Your task to perform on an android device: show emergency info Image 0: 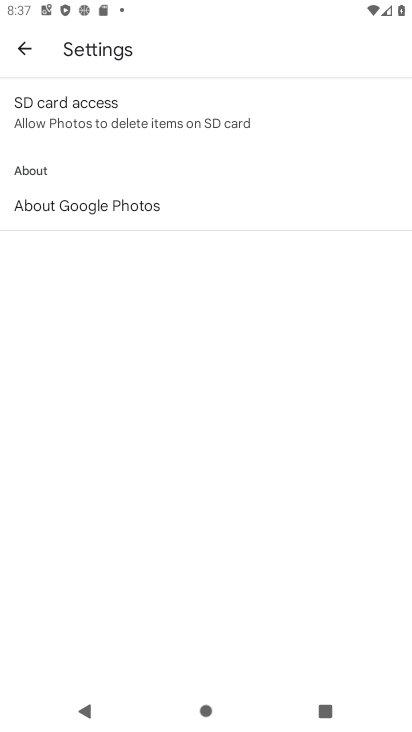
Step 0: press home button
Your task to perform on an android device: show emergency info Image 1: 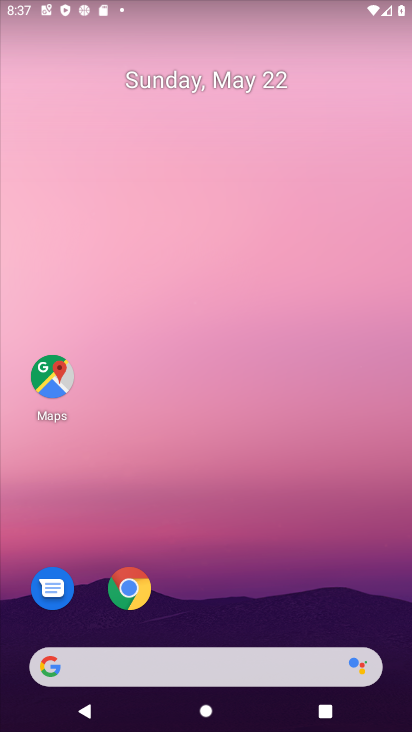
Step 1: drag from (243, 560) to (230, 17)
Your task to perform on an android device: show emergency info Image 2: 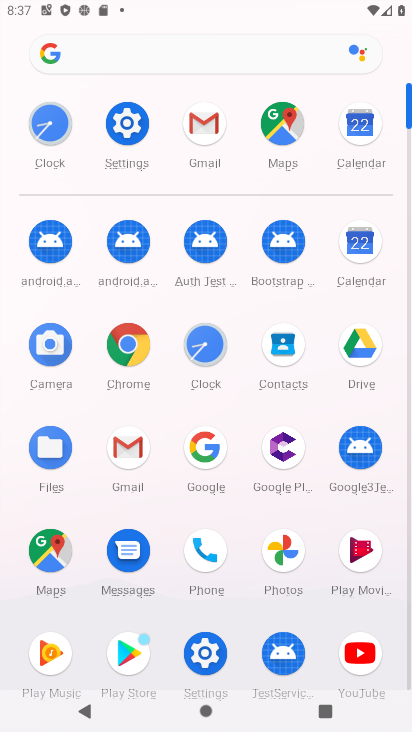
Step 2: click (127, 123)
Your task to perform on an android device: show emergency info Image 3: 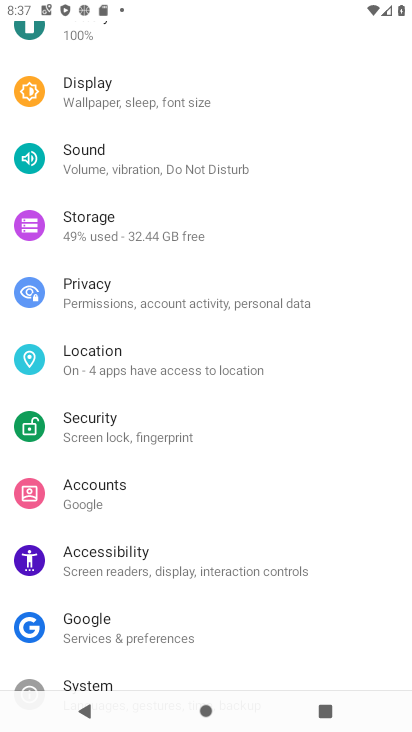
Step 3: drag from (269, 451) to (286, 4)
Your task to perform on an android device: show emergency info Image 4: 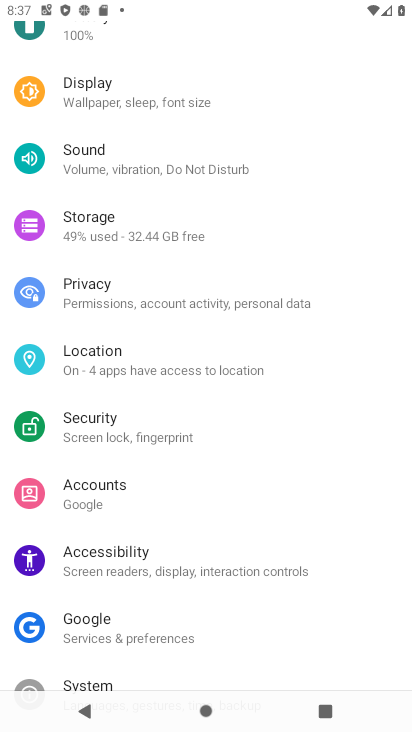
Step 4: click (255, 212)
Your task to perform on an android device: show emergency info Image 5: 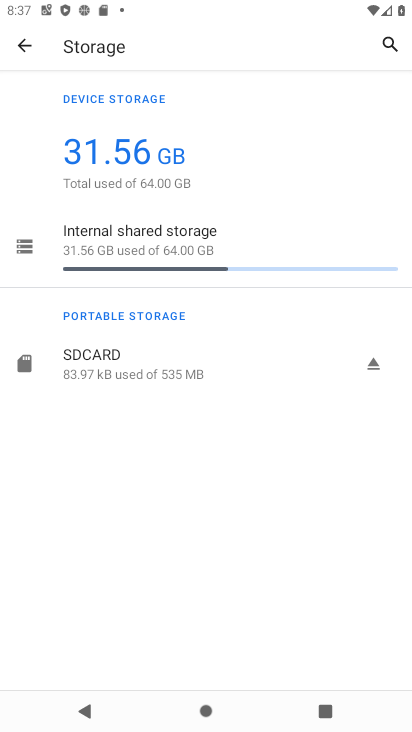
Step 5: click (26, 45)
Your task to perform on an android device: show emergency info Image 6: 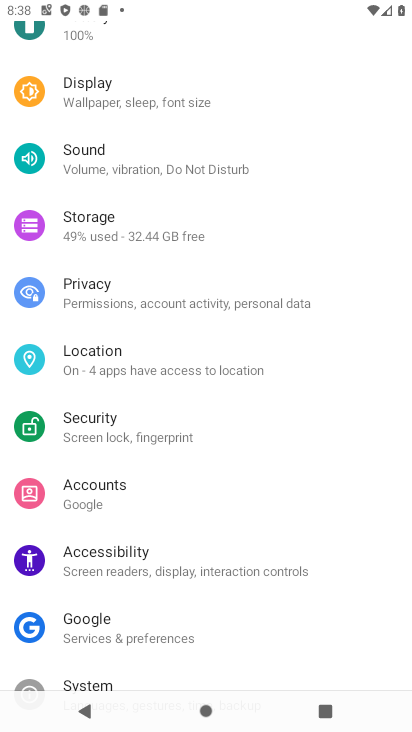
Step 6: drag from (170, 515) to (176, 67)
Your task to perform on an android device: show emergency info Image 7: 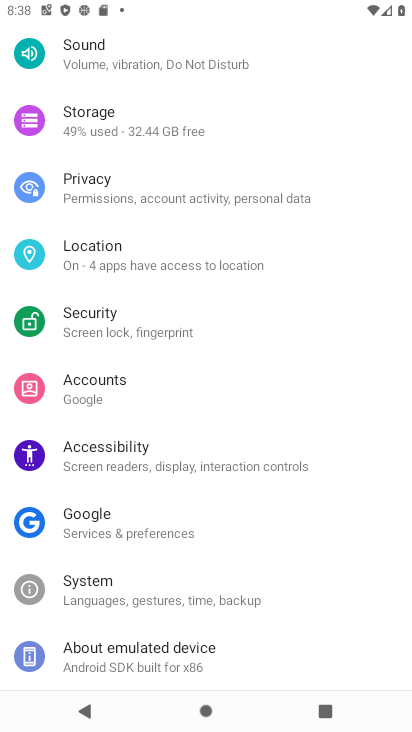
Step 7: click (131, 649)
Your task to perform on an android device: show emergency info Image 8: 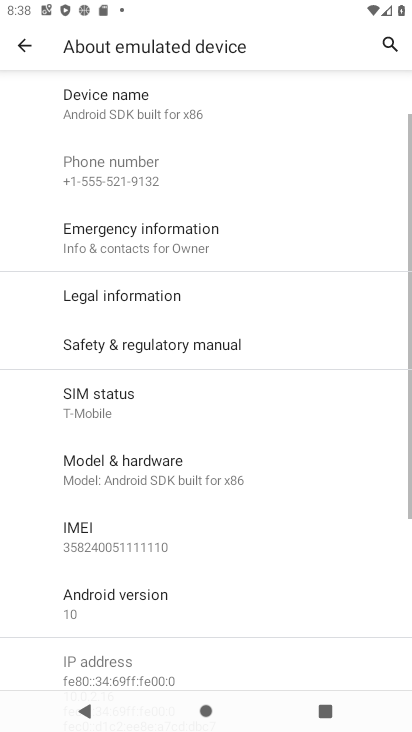
Step 8: click (159, 218)
Your task to perform on an android device: show emergency info Image 9: 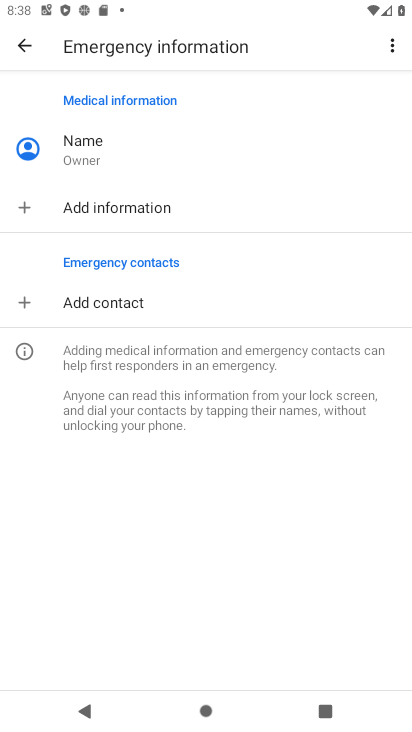
Step 9: task complete